Your task to perform on an android device: search for starred emails in the gmail app Image 0: 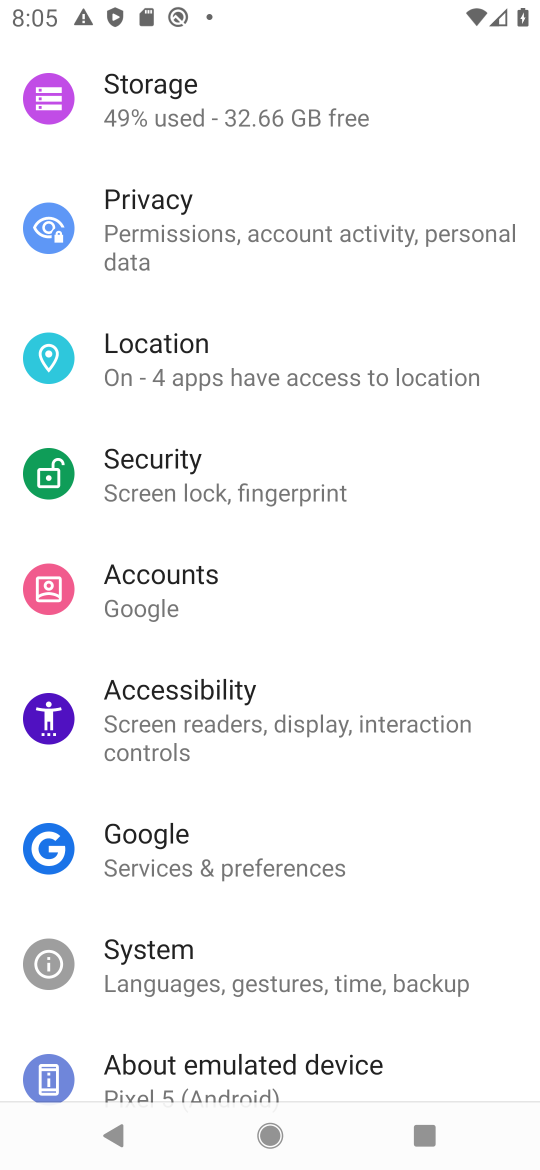
Step 0: press home button
Your task to perform on an android device: search for starred emails in the gmail app Image 1: 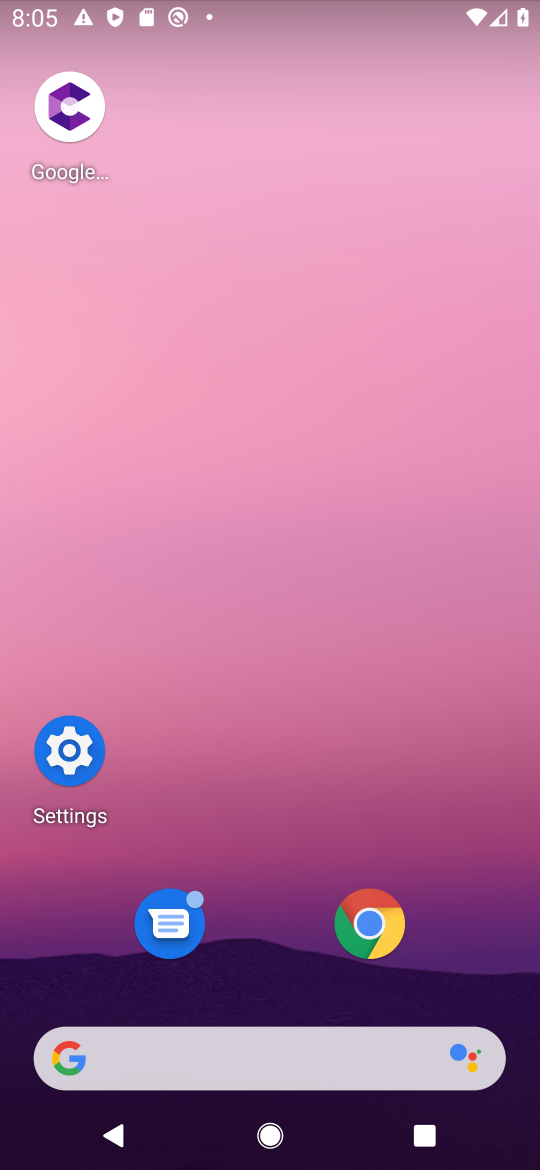
Step 1: drag from (522, 1103) to (449, 174)
Your task to perform on an android device: search for starred emails in the gmail app Image 2: 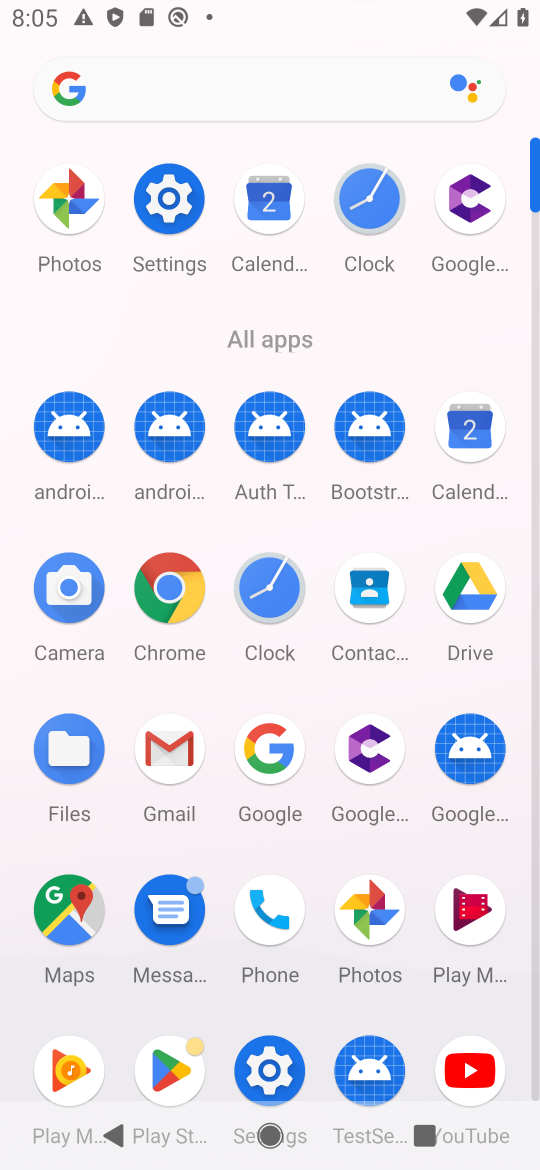
Step 2: click (167, 762)
Your task to perform on an android device: search for starred emails in the gmail app Image 3: 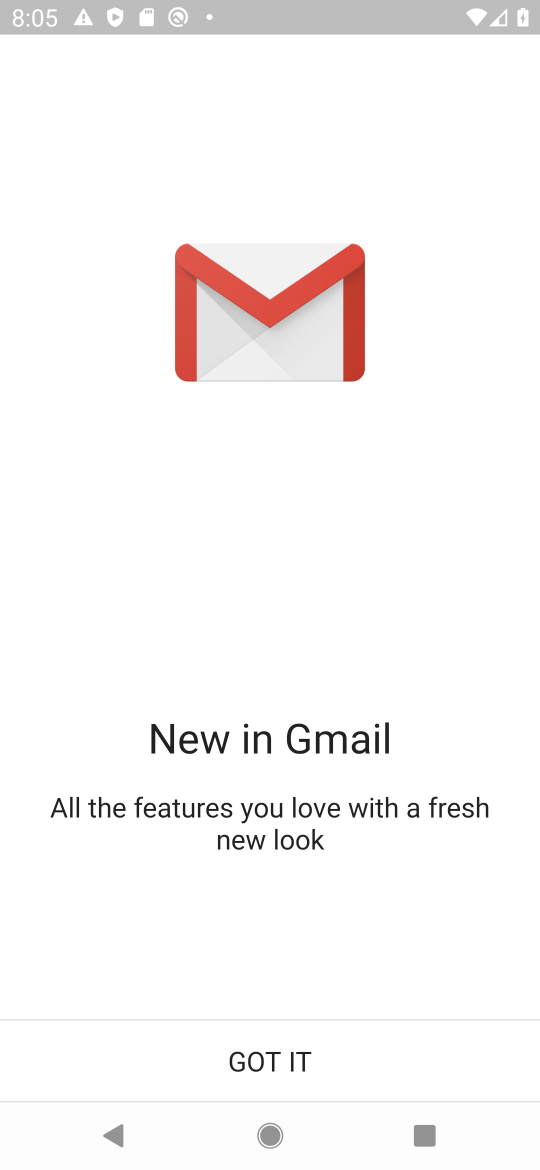
Step 3: click (269, 1064)
Your task to perform on an android device: search for starred emails in the gmail app Image 4: 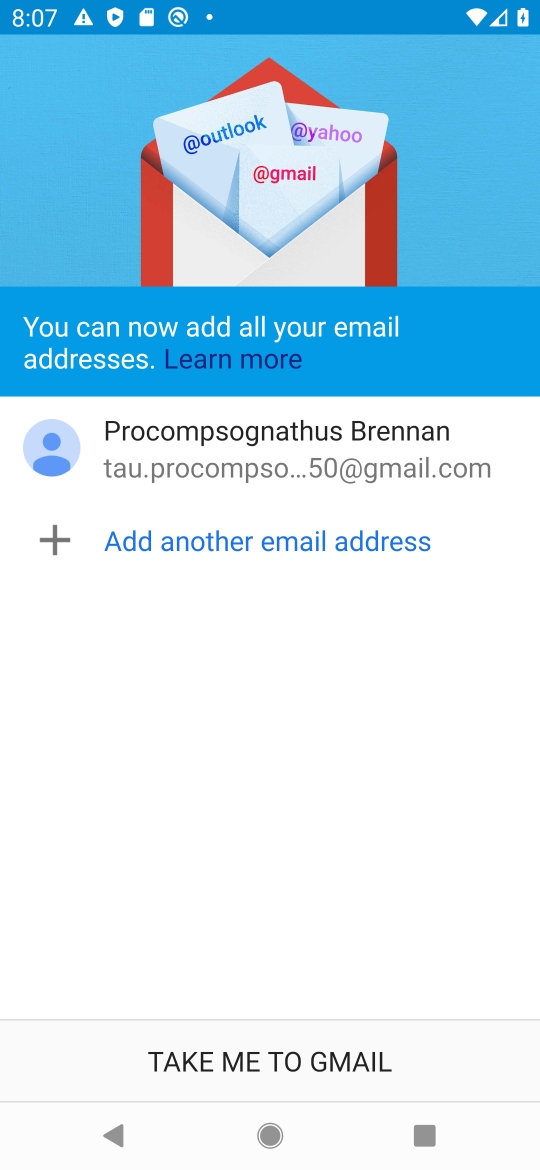
Step 4: click (243, 1052)
Your task to perform on an android device: search for starred emails in the gmail app Image 5: 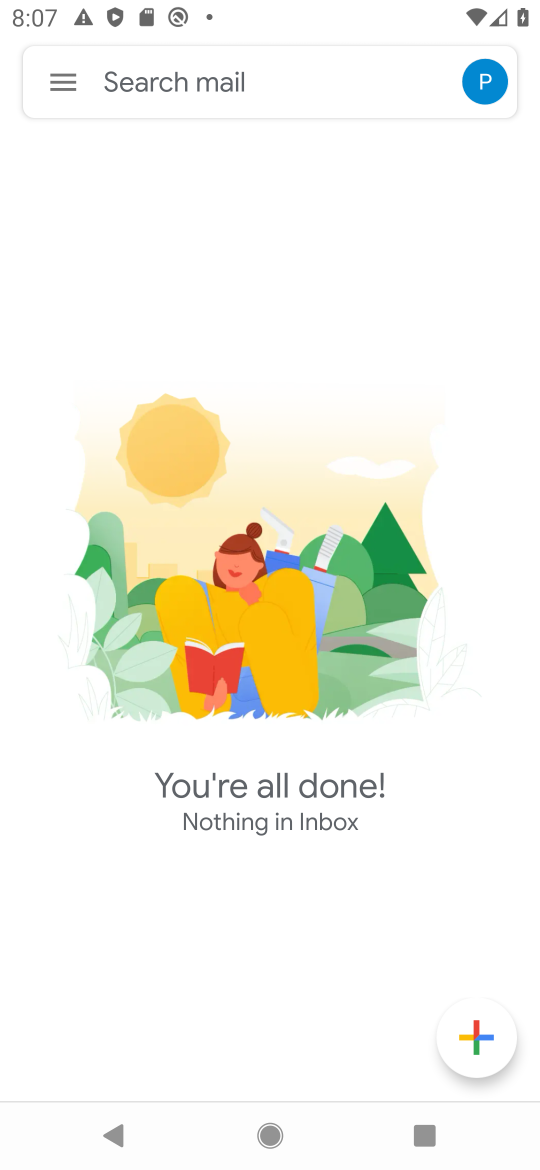
Step 5: click (63, 75)
Your task to perform on an android device: search for starred emails in the gmail app Image 6: 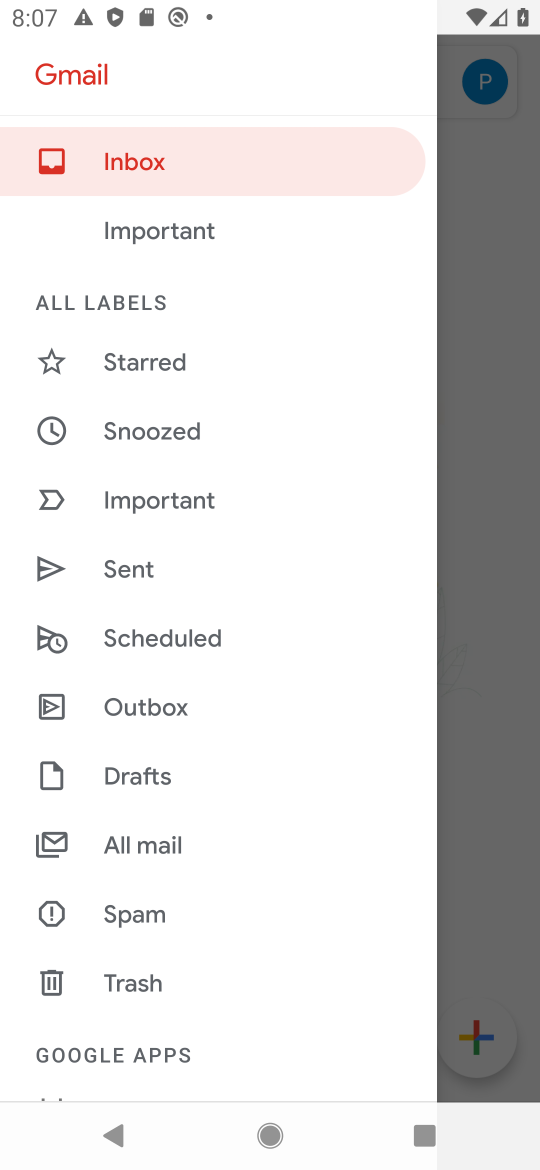
Step 6: click (164, 359)
Your task to perform on an android device: search for starred emails in the gmail app Image 7: 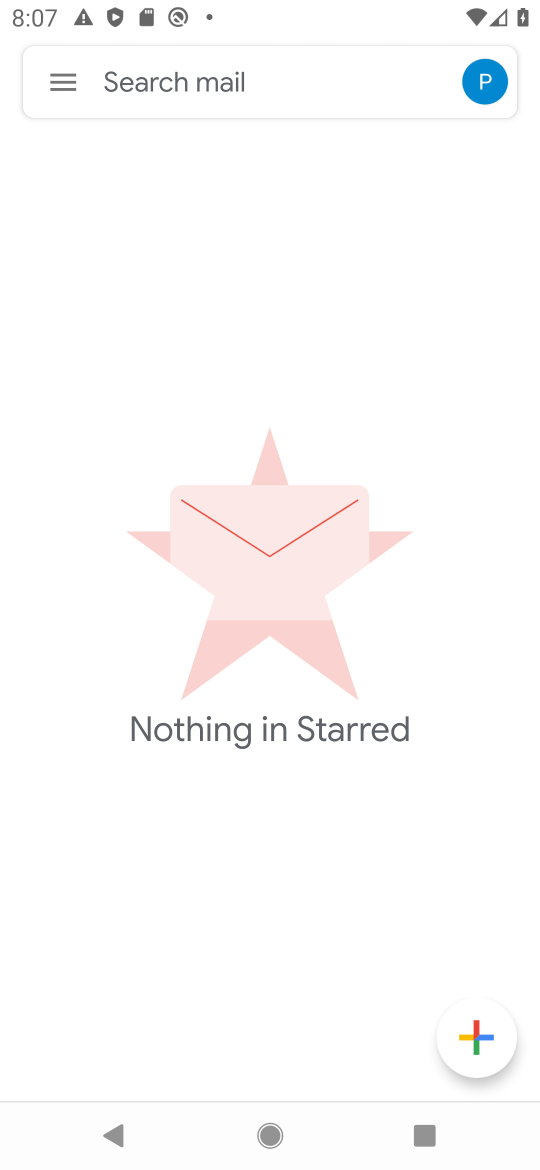
Step 7: task complete